Your task to perform on an android device: Open my contact list Image 0: 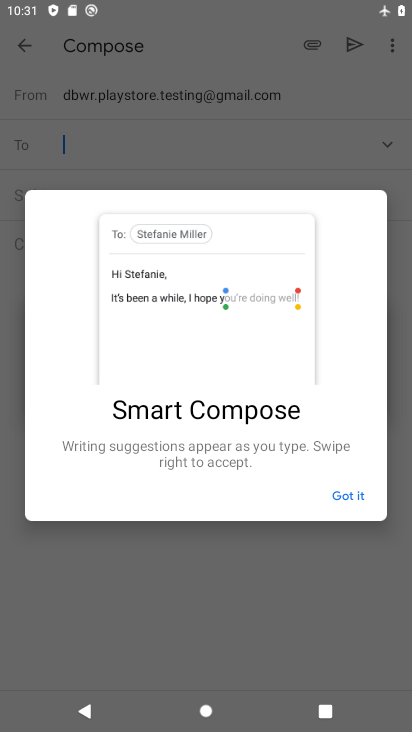
Step 0: press home button
Your task to perform on an android device: Open my contact list Image 1: 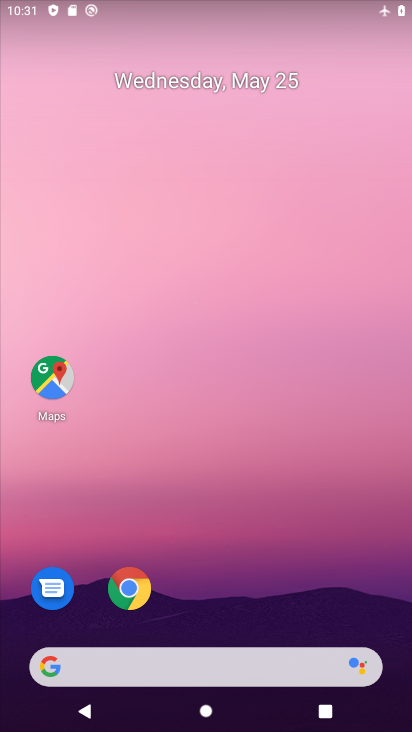
Step 1: drag from (217, 590) to (239, 146)
Your task to perform on an android device: Open my contact list Image 2: 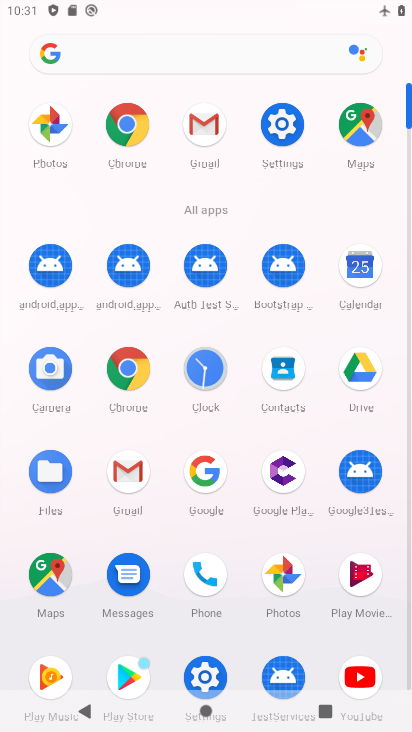
Step 2: click (293, 368)
Your task to perform on an android device: Open my contact list Image 3: 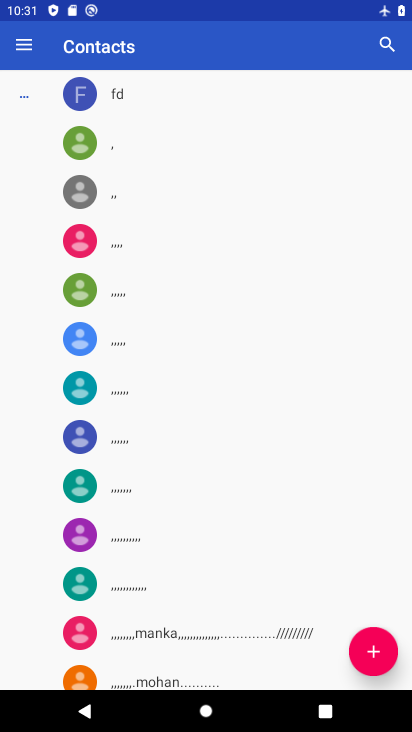
Step 3: task complete